Your task to perform on an android device: Go to notification settings Image 0: 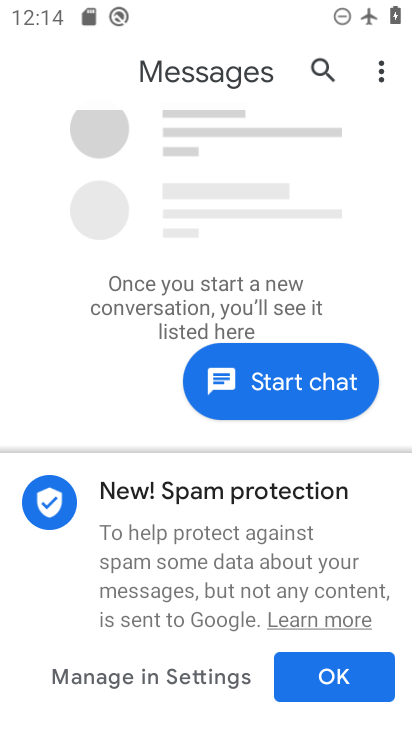
Step 0: press home button
Your task to perform on an android device: Go to notification settings Image 1: 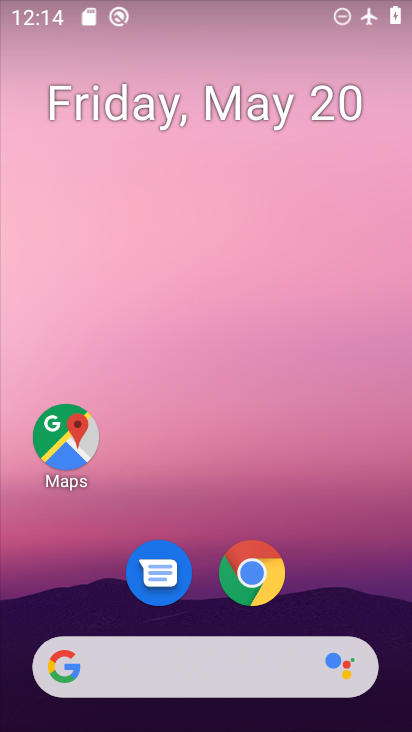
Step 1: drag from (208, 709) to (209, 128)
Your task to perform on an android device: Go to notification settings Image 2: 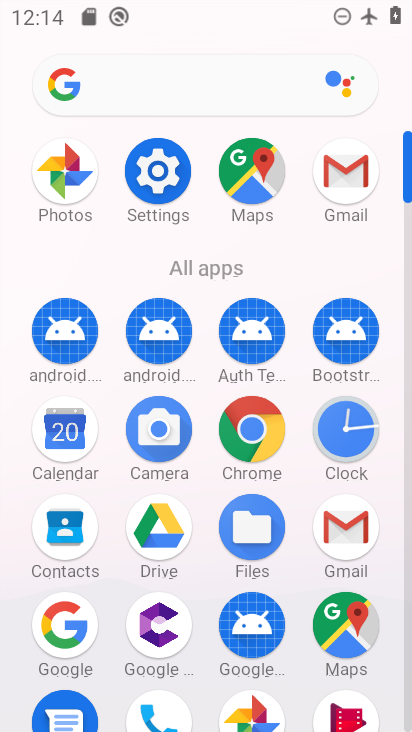
Step 2: click (161, 171)
Your task to perform on an android device: Go to notification settings Image 3: 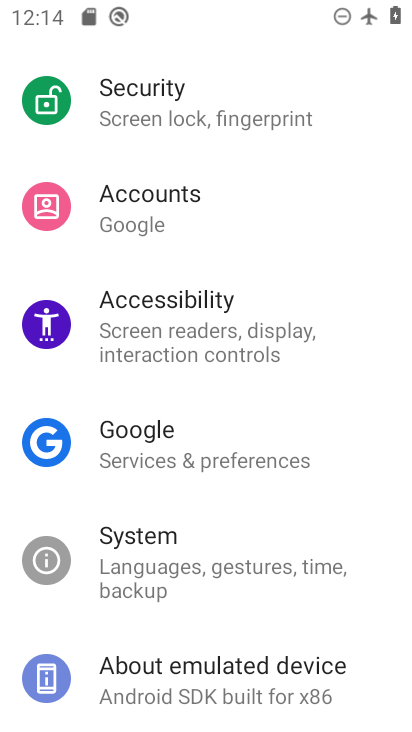
Step 3: drag from (208, 143) to (222, 639)
Your task to perform on an android device: Go to notification settings Image 4: 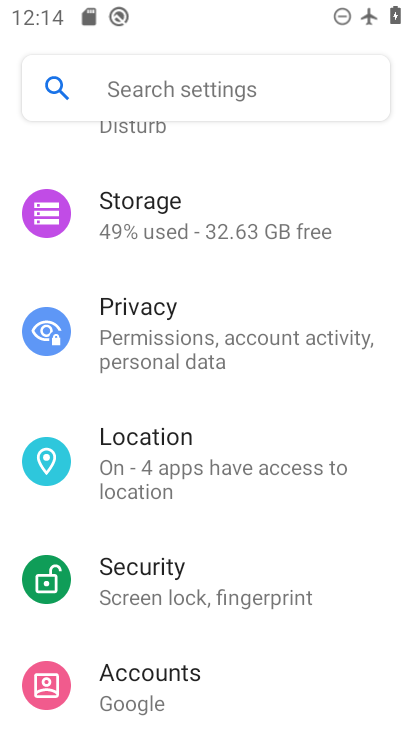
Step 4: drag from (204, 166) to (208, 625)
Your task to perform on an android device: Go to notification settings Image 5: 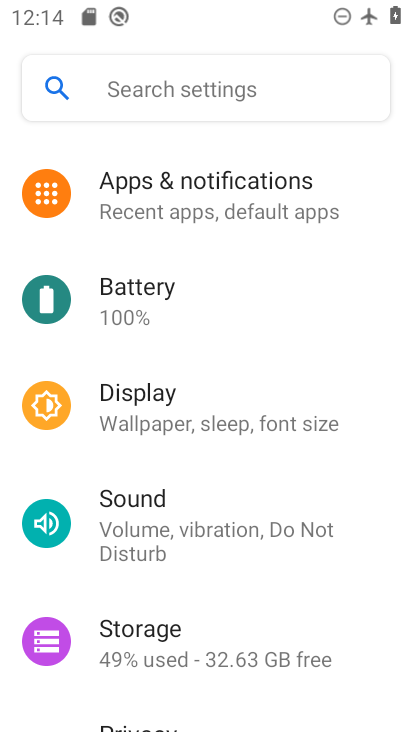
Step 5: click (212, 190)
Your task to perform on an android device: Go to notification settings Image 6: 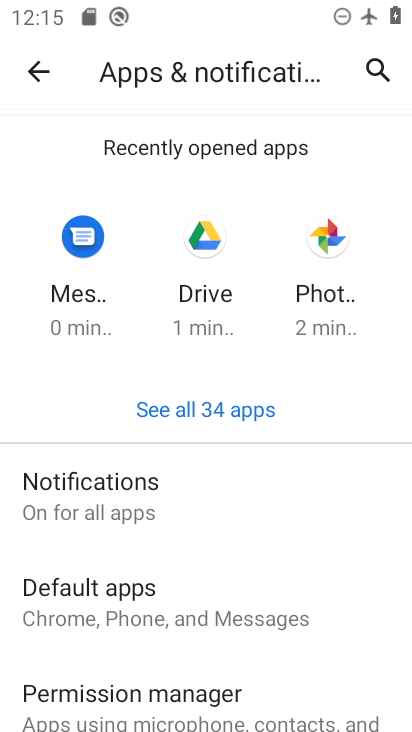
Step 6: click (87, 497)
Your task to perform on an android device: Go to notification settings Image 7: 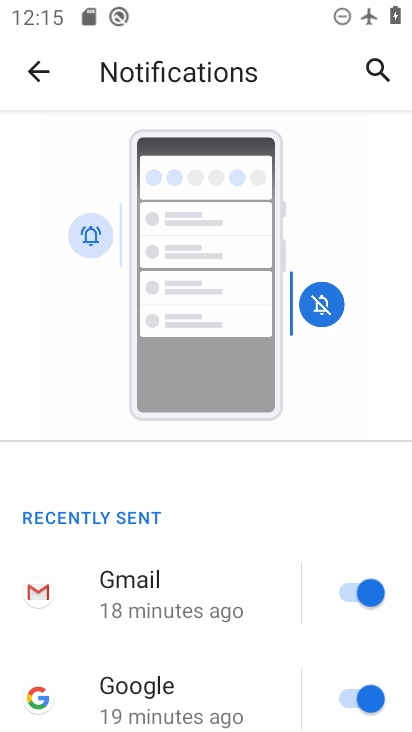
Step 7: task complete